Your task to perform on an android device: What's the weather going to be this weekend? Image 0: 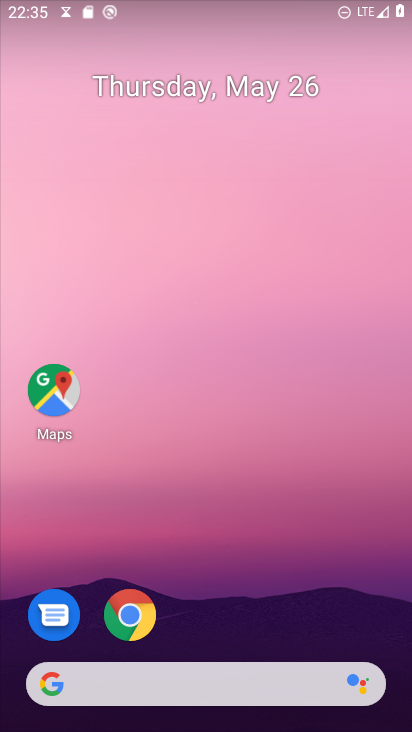
Step 0: drag from (266, 633) to (270, 164)
Your task to perform on an android device: What's the weather going to be this weekend? Image 1: 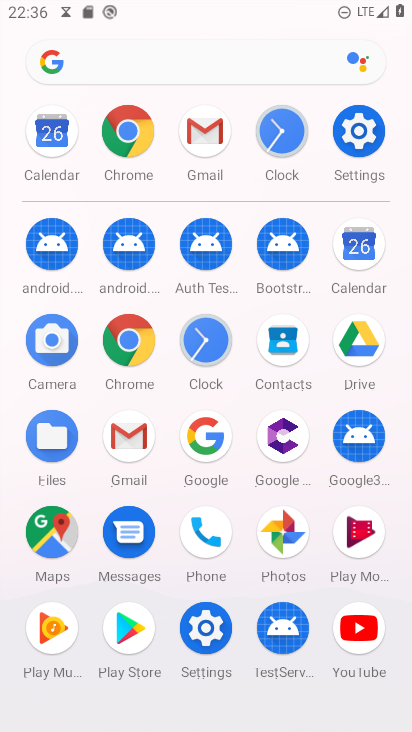
Step 1: click (362, 244)
Your task to perform on an android device: What's the weather going to be this weekend? Image 2: 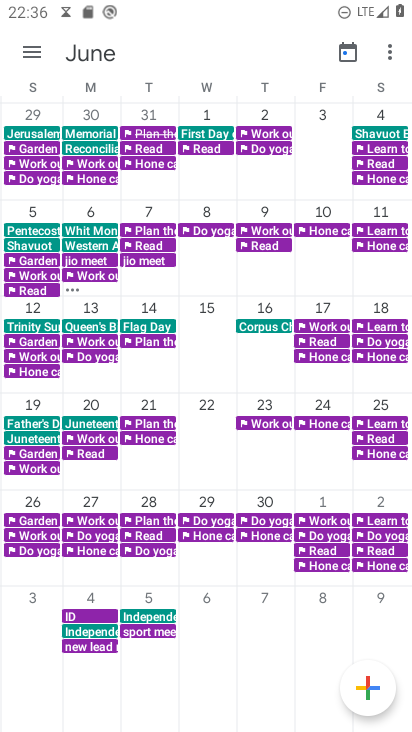
Step 2: click (25, 59)
Your task to perform on an android device: What's the weather going to be this weekend? Image 3: 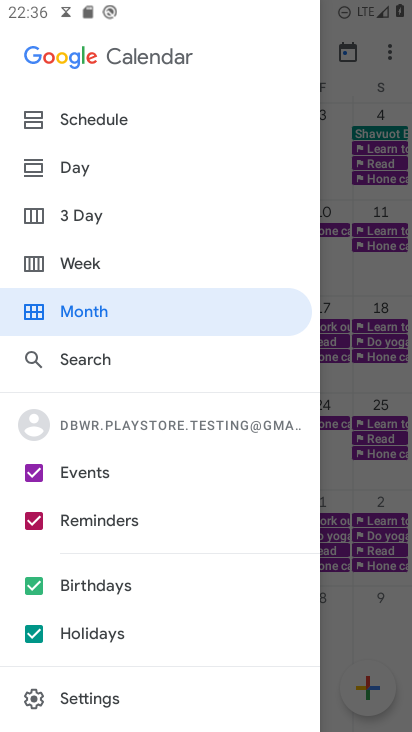
Step 3: click (341, 169)
Your task to perform on an android device: What's the weather going to be this weekend? Image 4: 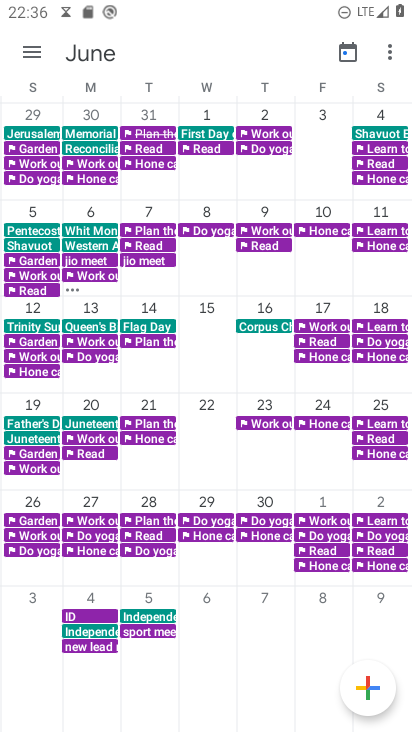
Step 4: drag from (10, 154) to (400, 131)
Your task to perform on an android device: What's the weather going to be this weekend? Image 5: 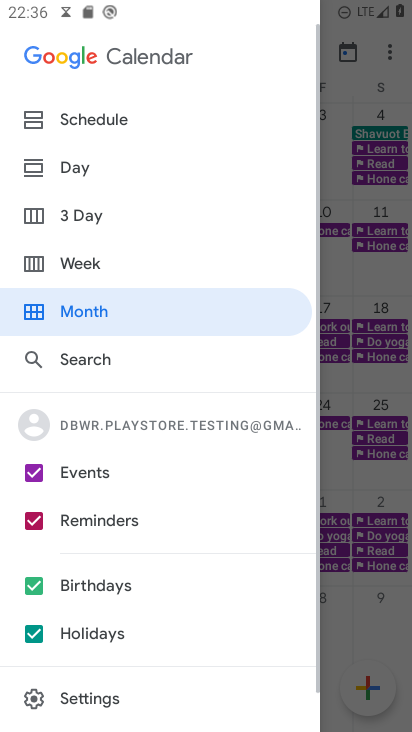
Step 5: click (350, 127)
Your task to perform on an android device: What's the weather going to be this weekend? Image 6: 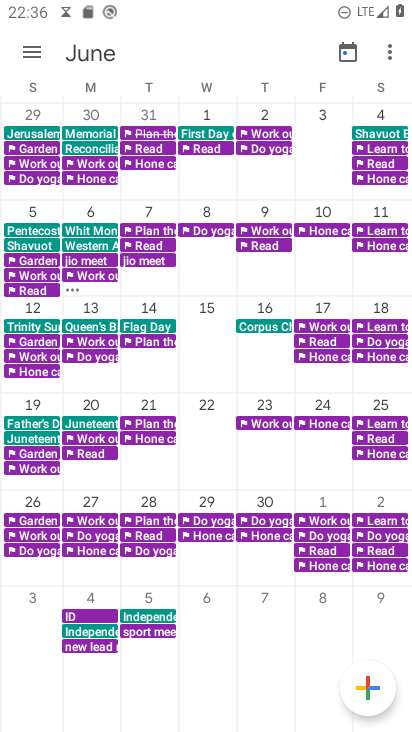
Step 6: drag from (62, 356) to (403, 349)
Your task to perform on an android device: What's the weather going to be this weekend? Image 7: 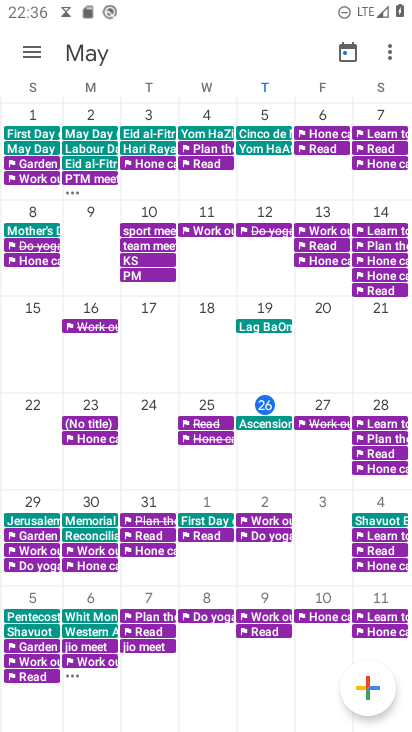
Step 7: click (27, 47)
Your task to perform on an android device: What's the weather going to be this weekend? Image 8: 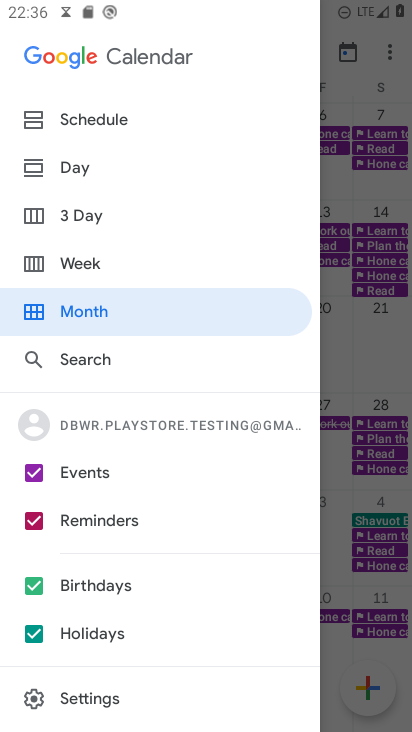
Step 8: click (97, 262)
Your task to perform on an android device: What's the weather going to be this weekend? Image 9: 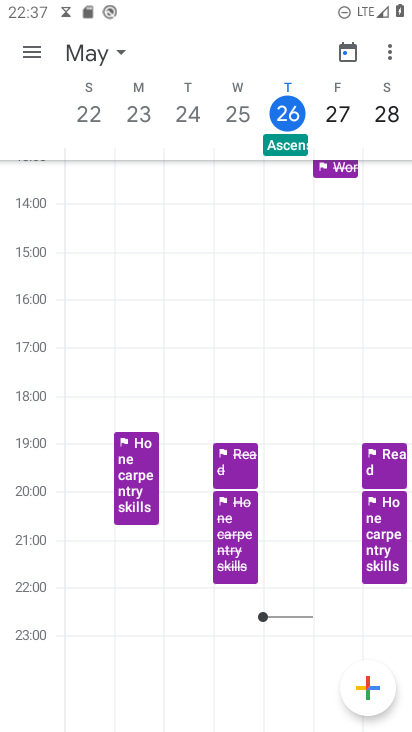
Step 9: task complete